Your task to perform on an android device: Is it going to rain today? Image 0: 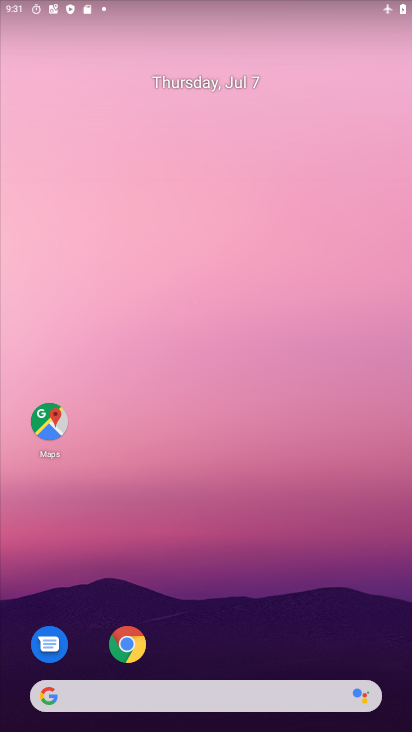
Step 0: click (256, 693)
Your task to perform on an android device: Is it going to rain today? Image 1: 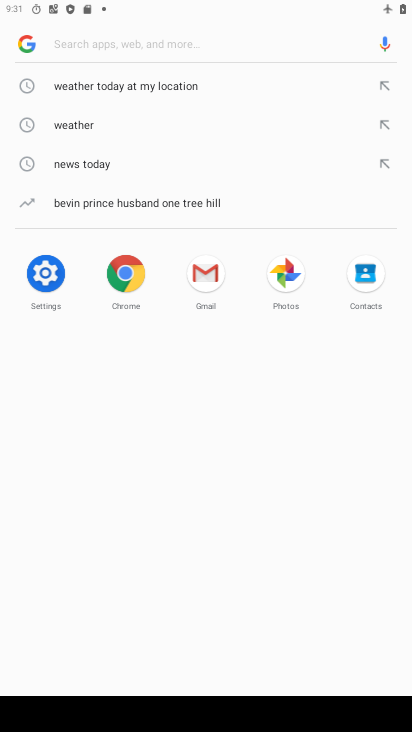
Step 1: click (80, 124)
Your task to perform on an android device: Is it going to rain today? Image 2: 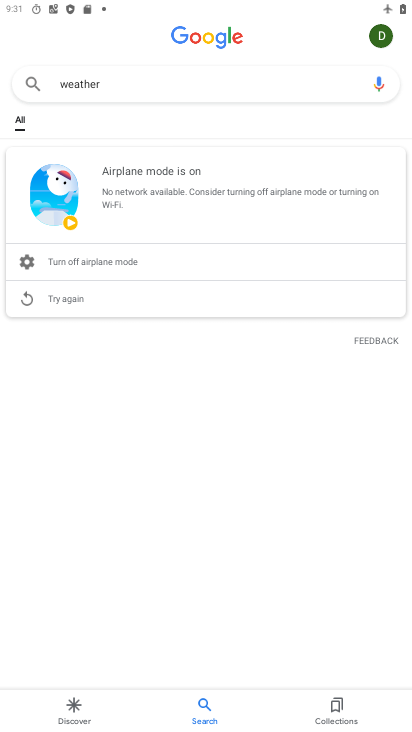
Step 2: task complete